Your task to perform on an android device: Open Chrome and go to settings Image 0: 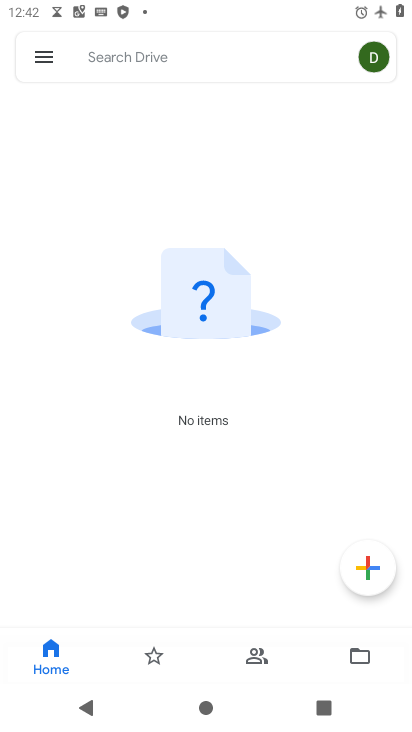
Step 0: press home button
Your task to perform on an android device: Open Chrome and go to settings Image 1: 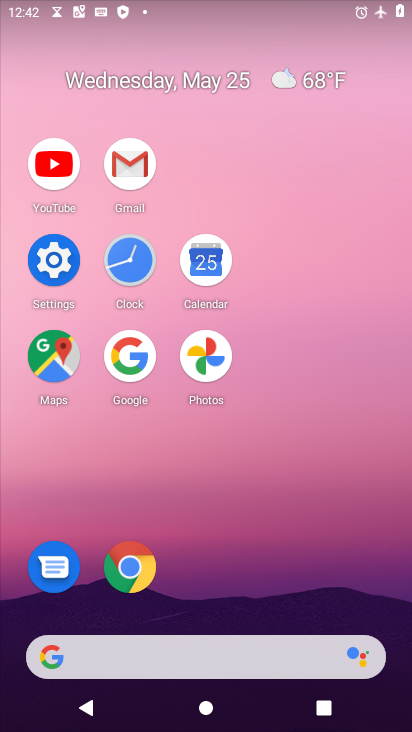
Step 1: click (139, 562)
Your task to perform on an android device: Open Chrome and go to settings Image 2: 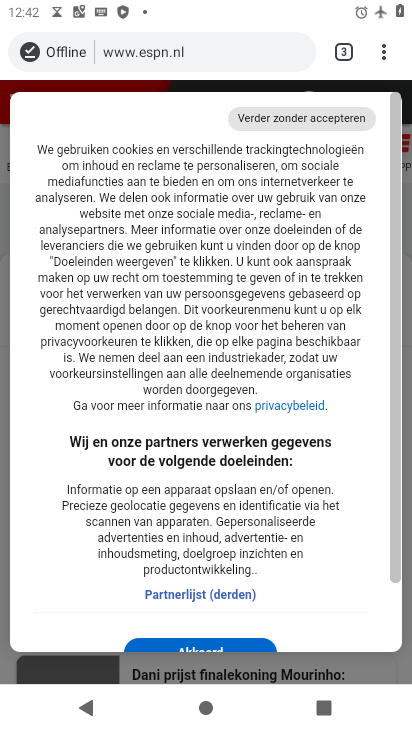
Step 2: click (386, 55)
Your task to perform on an android device: Open Chrome and go to settings Image 3: 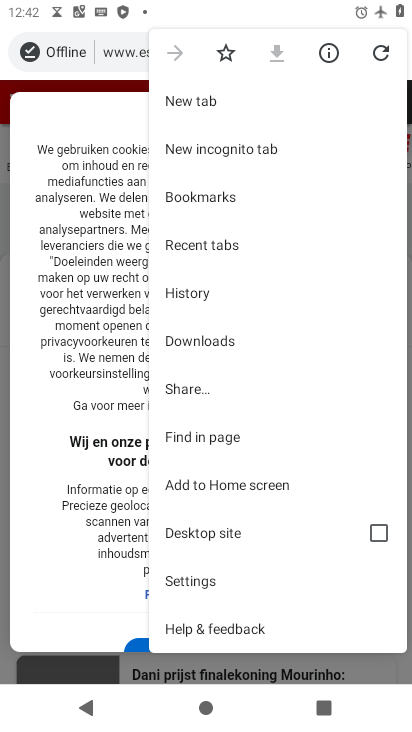
Step 3: click (217, 576)
Your task to perform on an android device: Open Chrome and go to settings Image 4: 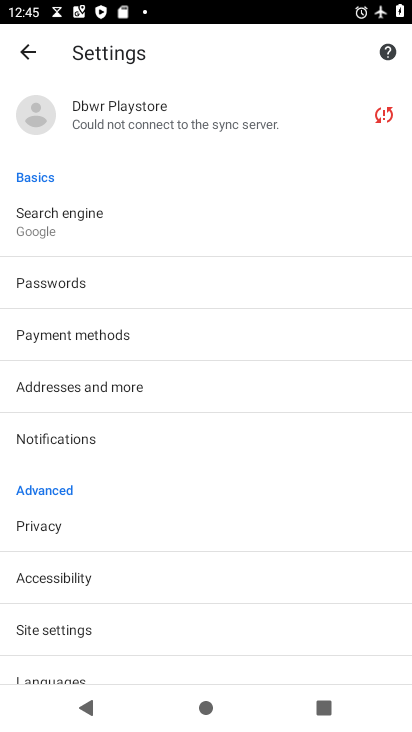
Step 4: task complete